Your task to perform on an android device: toggle show notifications on the lock screen Image 0: 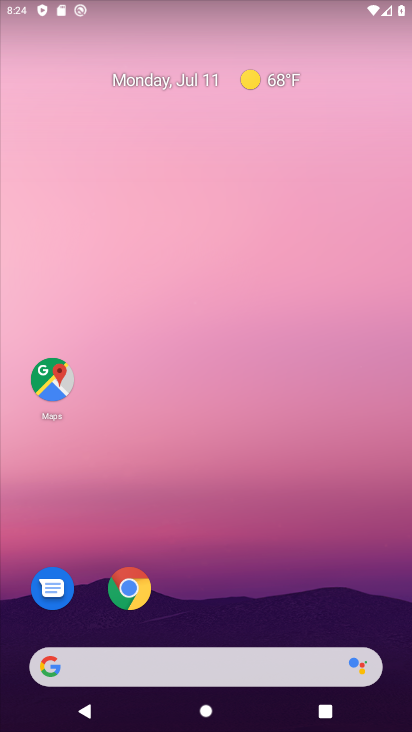
Step 0: drag from (211, 639) to (147, 148)
Your task to perform on an android device: toggle show notifications on the lock screen Image 1: 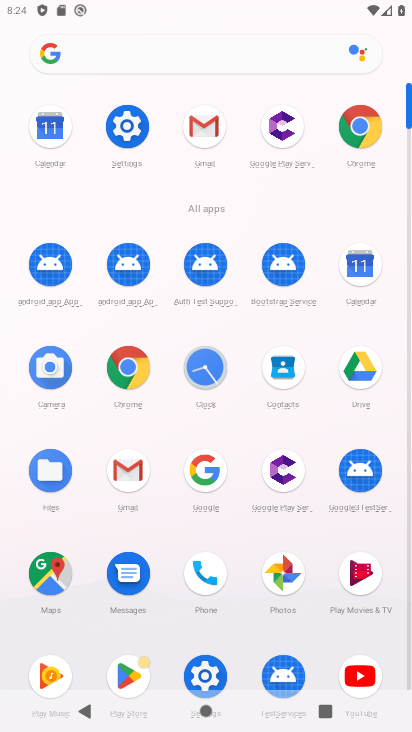
Step 1: click (208, 672)
Your task to perform on an android device: toggle show notifications on the lock screen Image 2: 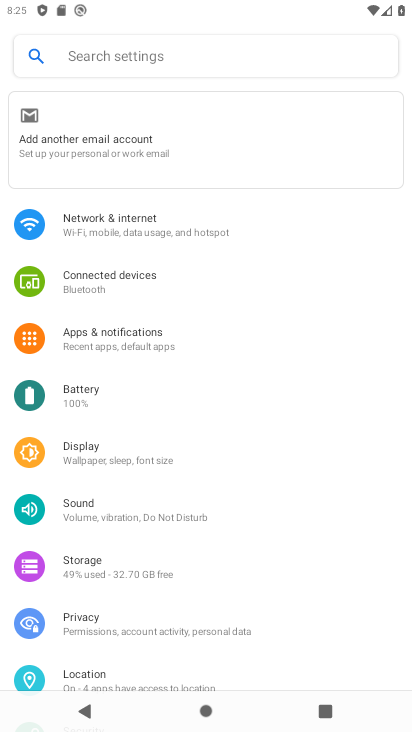
Step 2: click (116, 324)
Your task to perform on an android device: toggle show notifications on the lock screen Image 3: 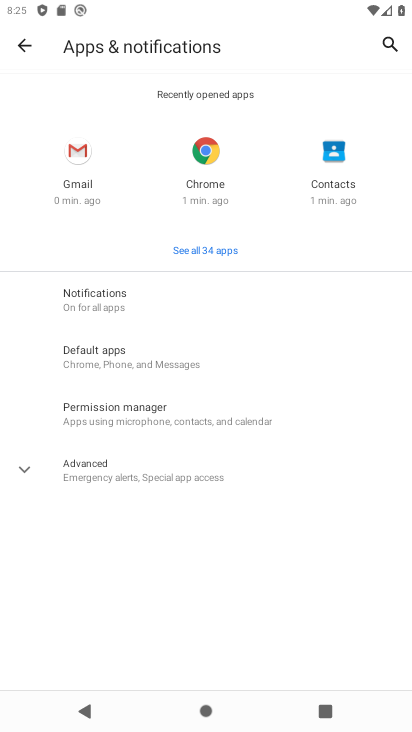
Step 3: click (92, 304)
Your task to perform on an android device: toggle show notifications on the lock screen Image 4: 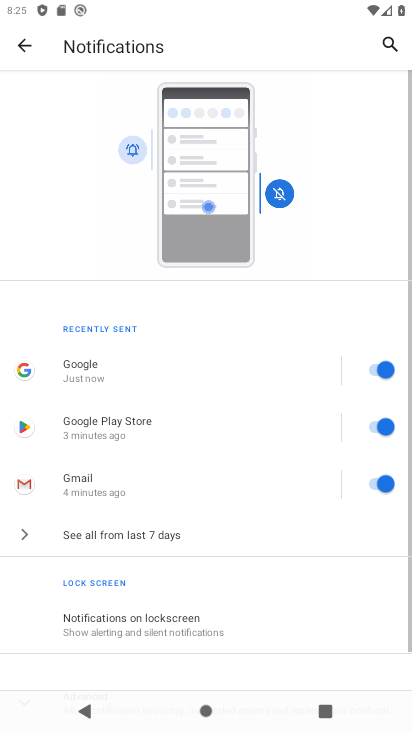
Step 4: click (162, 620)
Your task to perform on an android device: toggle show notifications on the lock screen Image 5: 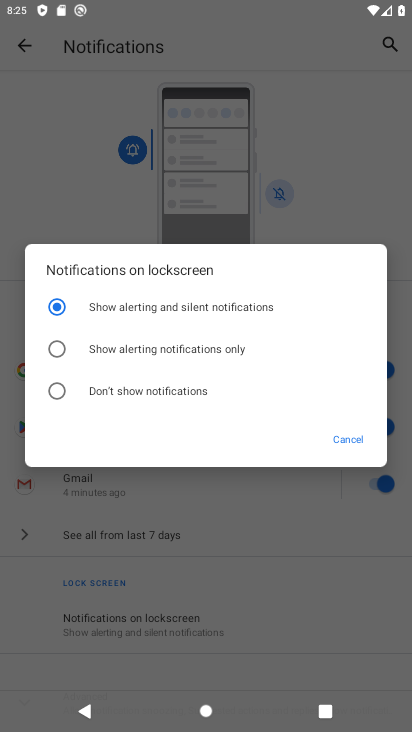
Step 5: click (81, 337)
Your task to perform on an android device: toggle show notifications on the lock screen Image 6: 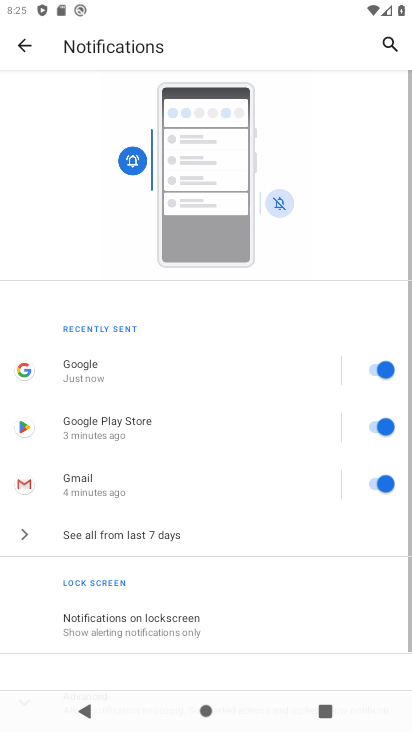
Step 6: task complete